Your task to perform on an android device: turn on notifications settings in the gmail app Image 0: 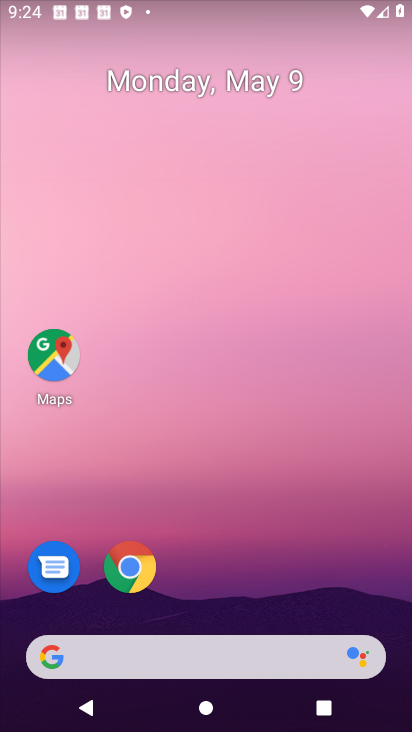
Step 0: drag from (170, 648) to (143, 93)
Your task to perform on an android device: turn on notifications settings in the gmail app Image 1: 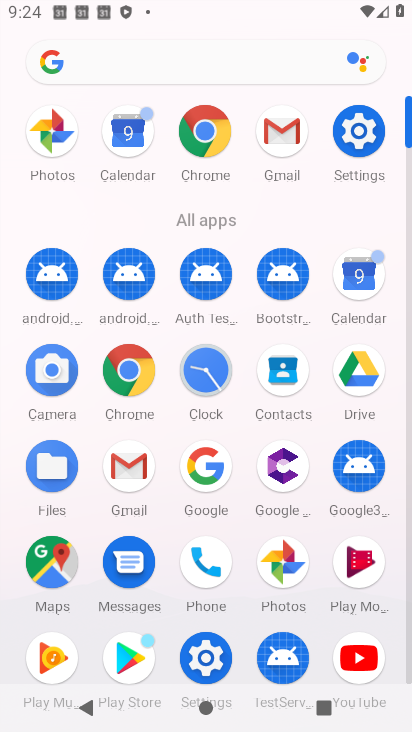
Step 1: click (147, 464)
Your task to perform on an android device: turn on notifications settings in the gmail app Image 2: 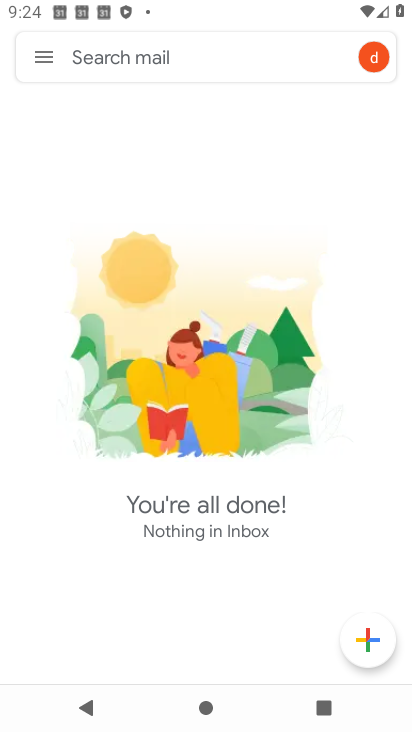
Step 2: click (32, 58)
Your task to perform on an android device: turn on notifications settings in the gmail app Image 3: 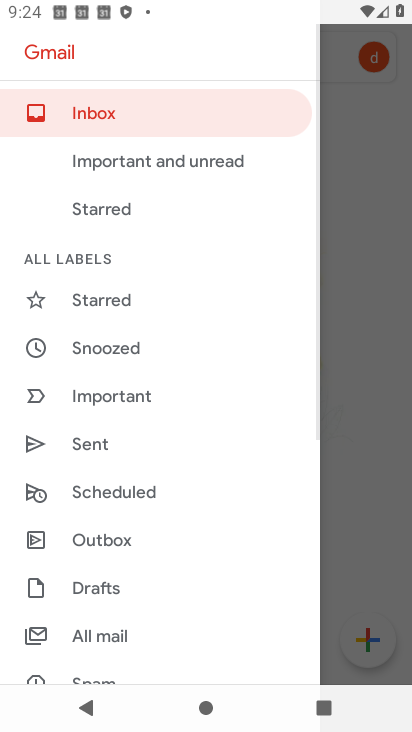
Step 3: drag from (106, 553) to (114, 164)
Your task to perform on an android device: turn on notifications settings in the gmail app Image 4: 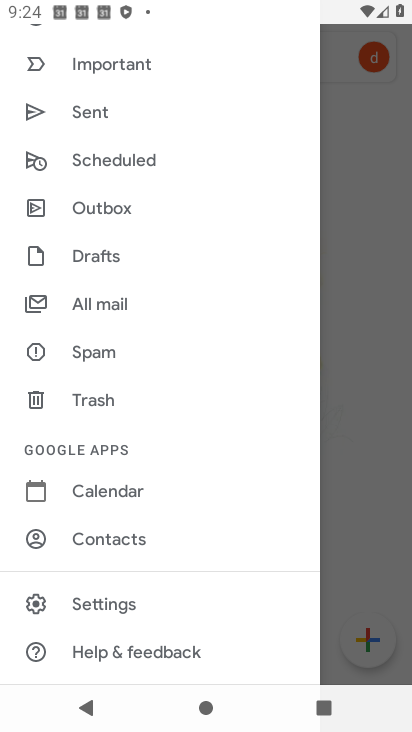
Step 4: click (124, 605)
Your task to perform on an android device: turn on notifications settings in the gmail app Image 5: 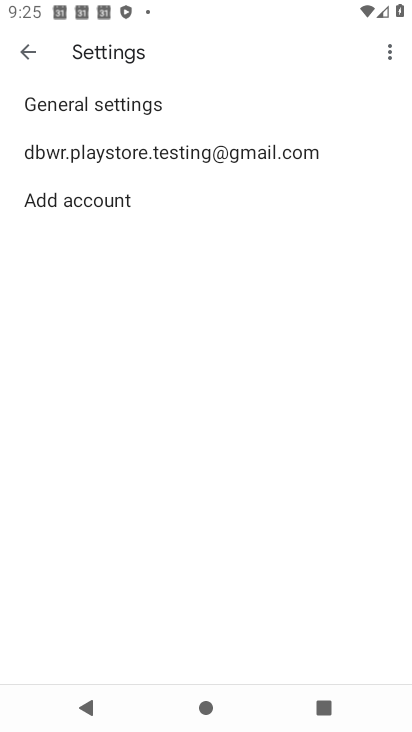
Step 5: click (100, 156)
Your task to perform on an android device: turn on notifications settings in the gmail app Image 6: 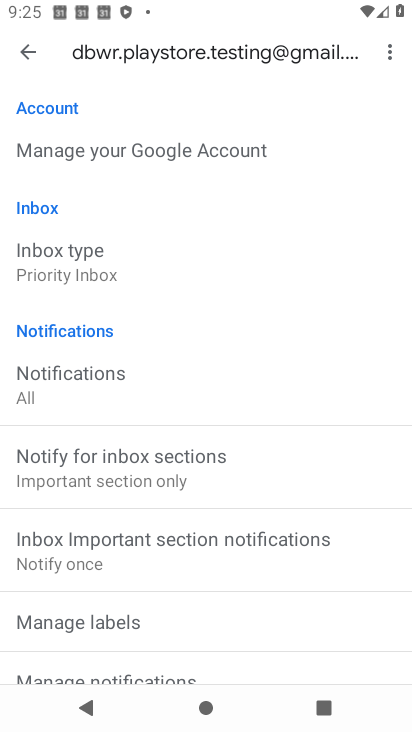
Step 6: drag from (181, 568) to (137, 154)
Your task to perform on an android device: turn on notifications settings in the gmail app Image 7: 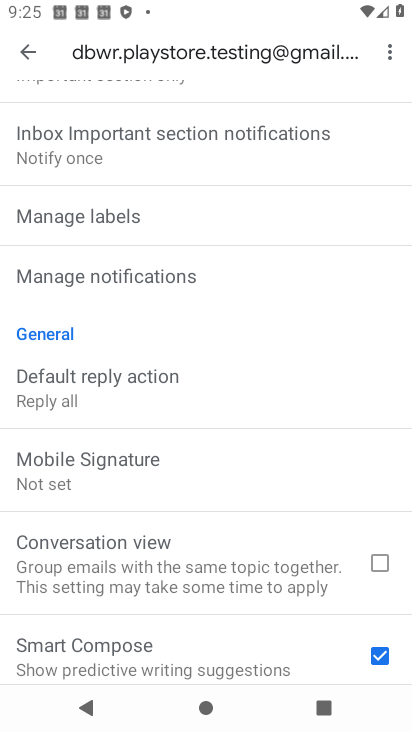
Step 7: click (80, 275)
Your task to perform on an android device: turn on notifications settings in the gmail app Image 8: 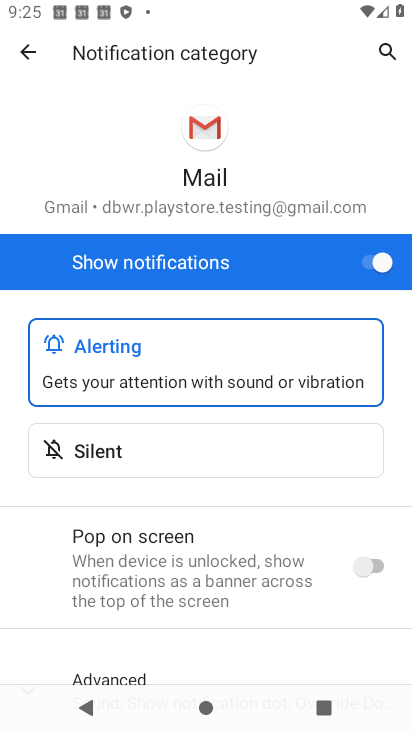
Step 8: task complete